Your task to perform on an android device: turn on javascript in the chrome app Image 0: 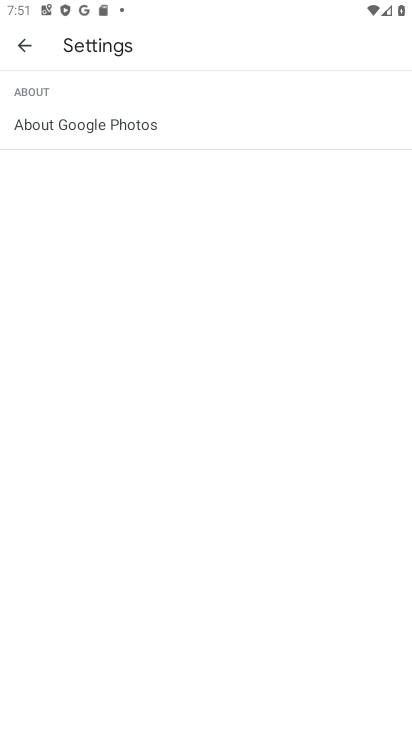
Step 0: press home button
Your task to perform on an android device: turn on javascript in the chrome app Image 1: 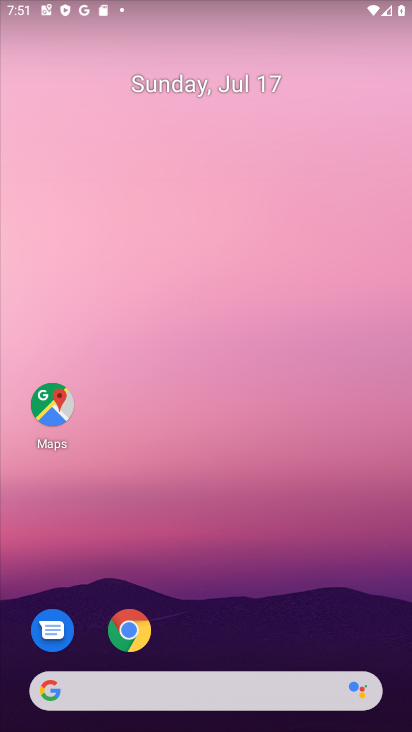
Step 1: click (127, 627)
Your task to perform on an android device: turn on javascript in the chrome app Image 2: 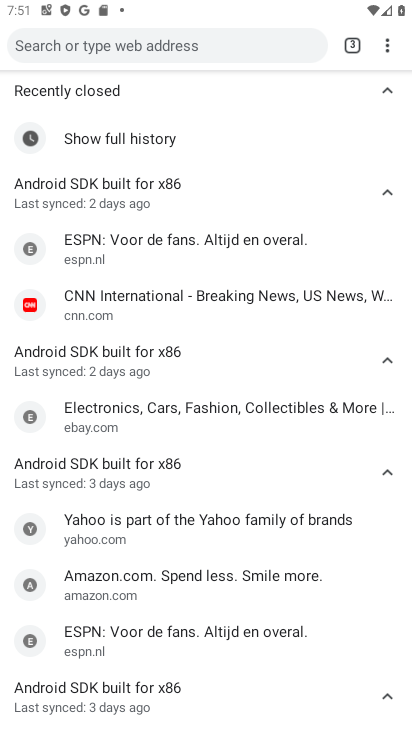
Step 2: click (383, 41)
Your task to perform on an android device: turn on javascript in the chrome app Image 3: 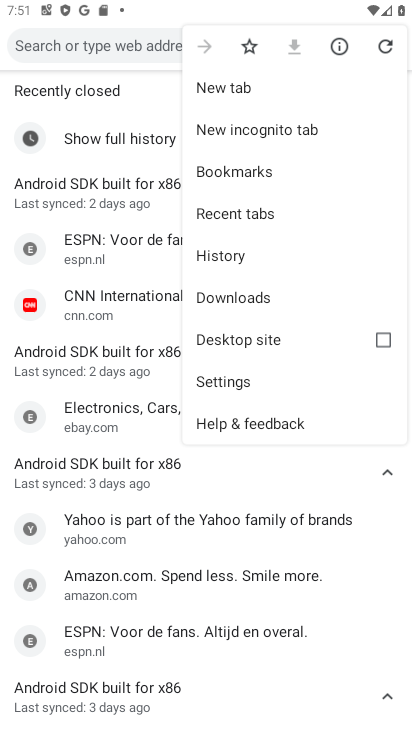
Step 3: click (252, 379)
Your task to perform on an android device: turn on javascript in the chrome app Image 4: 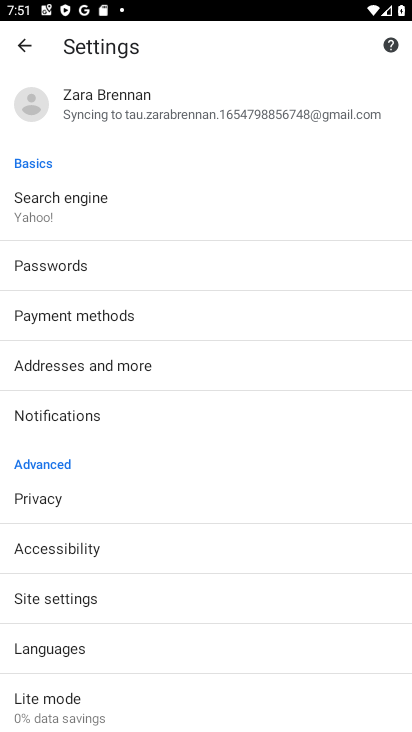
Step 4: click (33, 603)
Your task to perform on an android device: turn on javascript in the chrome app Image 5: 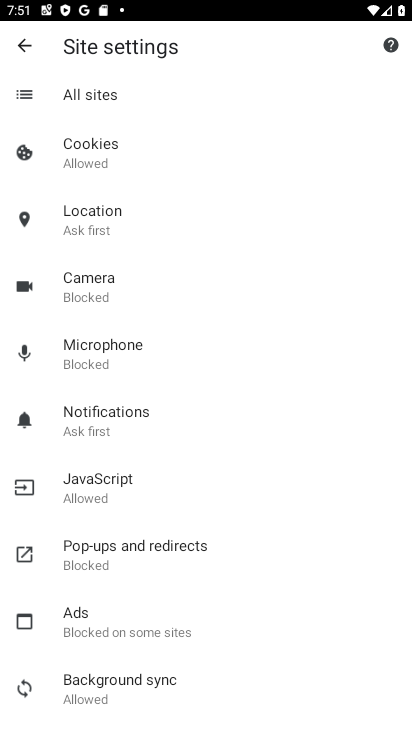
Step 5: click (99, 486)
Your task to perform on an android device: turn on javascript in the chrome app Image 6: 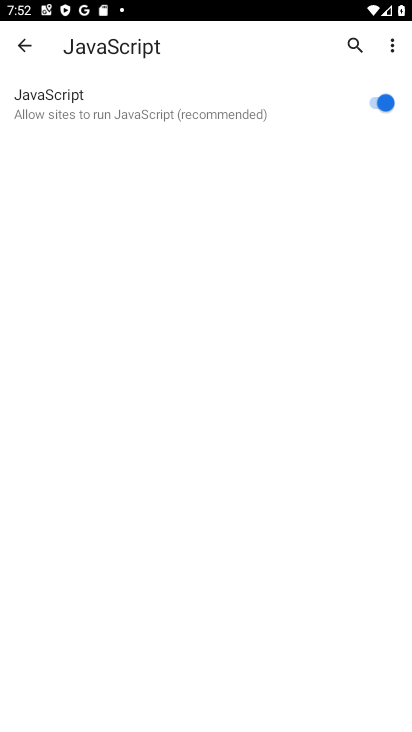
Step 6: task complete